Your task to perform on an android device: Go to wifi settings Image 0: 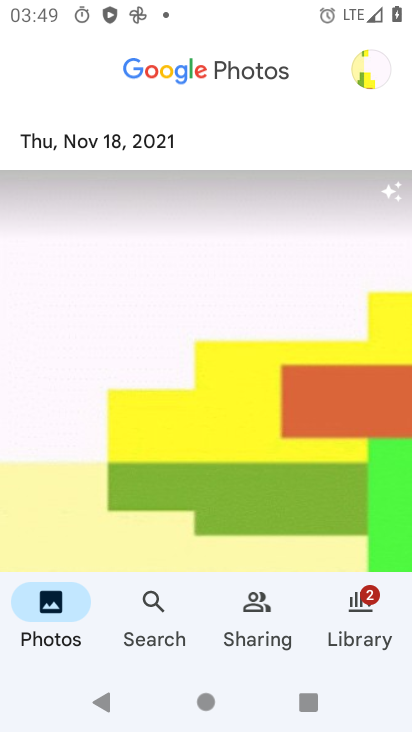
Step 0: press home button
Your task to perform on an android device: Go to wifi settings Image 1: 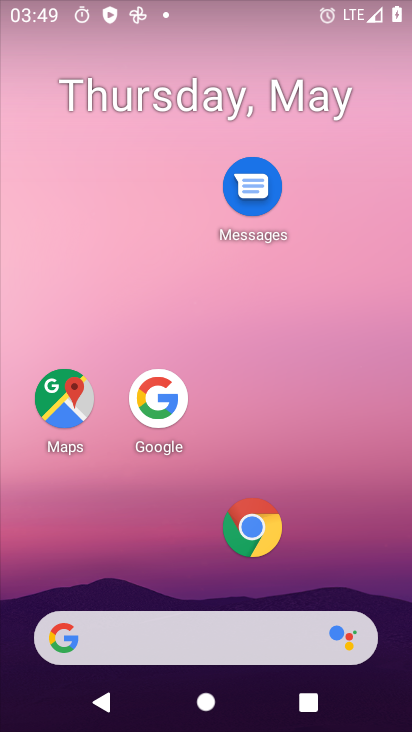
Step 1: drag from (163, 556) to (243, 52)
Your task to perform on an android device: Go to wifi settings Image 2: 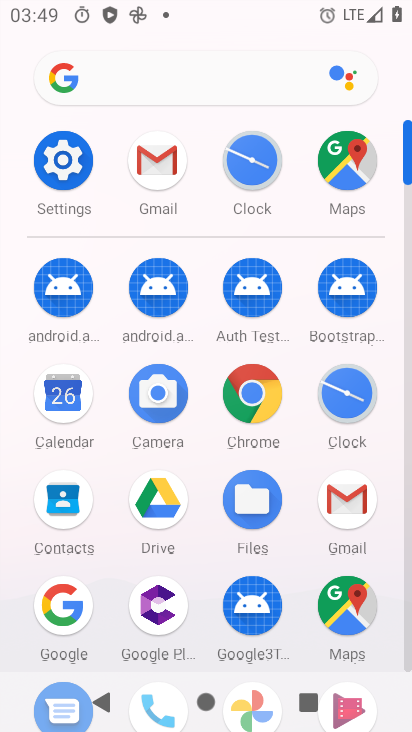
Step 2: click (95, 161)
Your task to perform on an android device: Go to wifi settings Image 3: 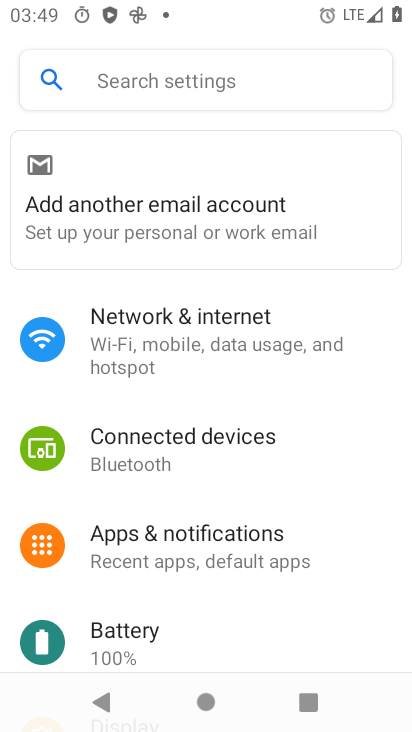
Step 3: click (174, 354)
Your task to perform on an android device: Go to wifi settings Image 4: 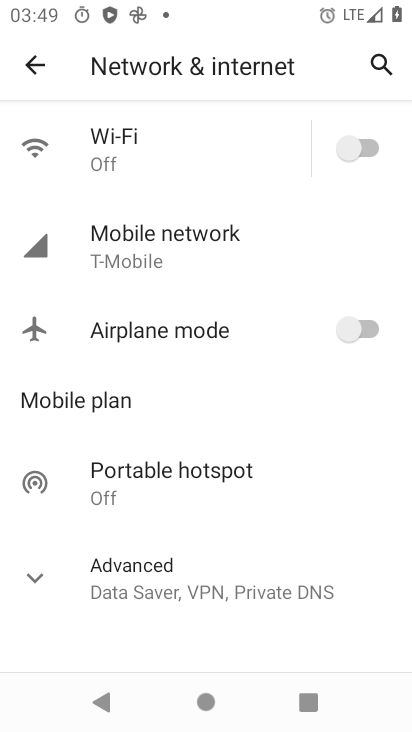
Step 4: click (161, 157)
Your task to perform on an android device: Go to wifi settings Image 5: 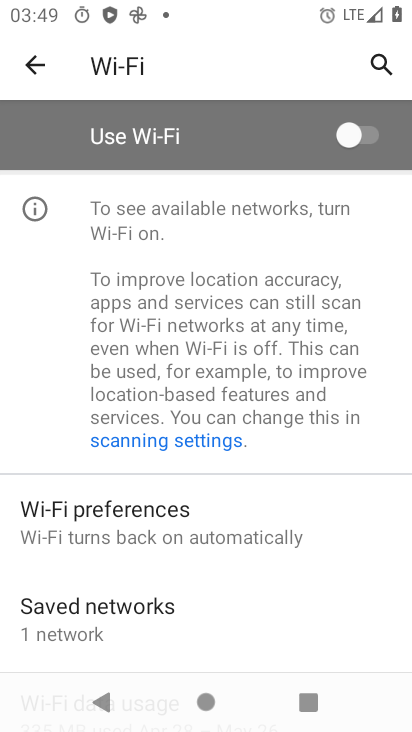
Step 5: task complete